Your task to perform on an android device: turn on data saver in the chrome app Image 0: 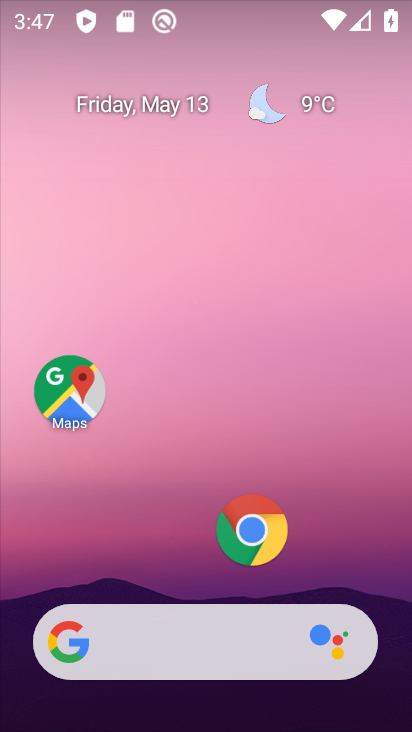
Step 0: press home button
Your task to perform on an android device: turn on data saver in the chrome app Image 1: 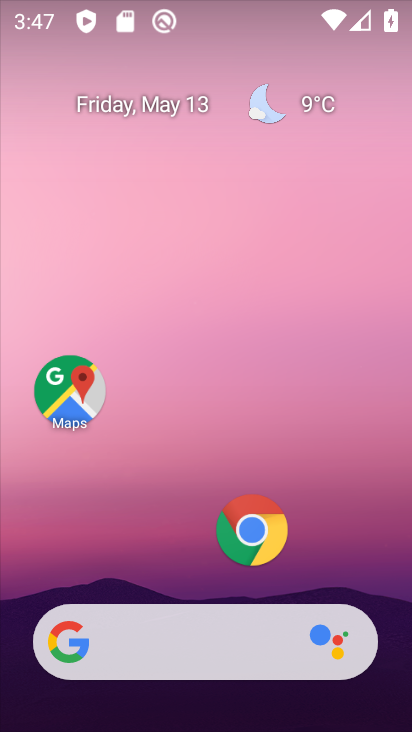
Step 1: press home button
Your task to perform on an android device: turn on data saver in the chrome app Image 2: 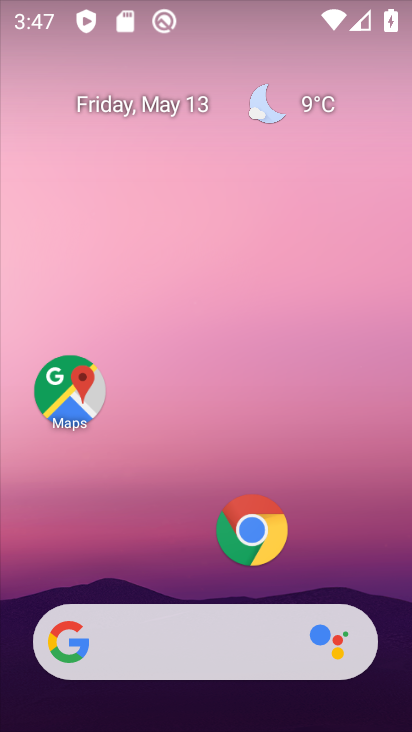
Step 2: drag from (198, 576) to (211, 80)
Your task to perform on an android device: turn on data saver in the chrome app Image 3: 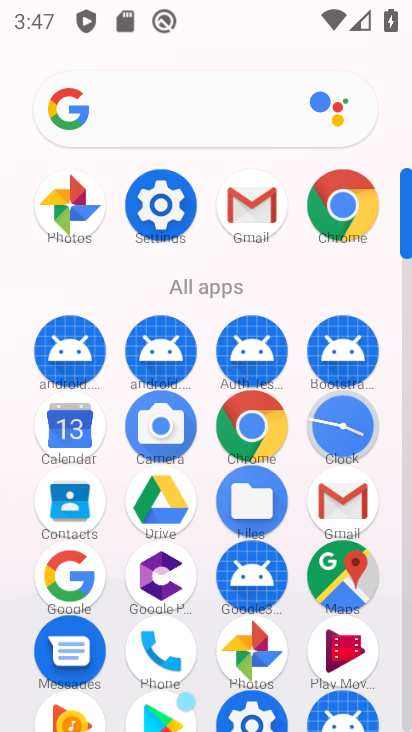
Step 3: click (249, 423)
Your task to perform on an android device: turn on data saver in the chrome app Image 4: 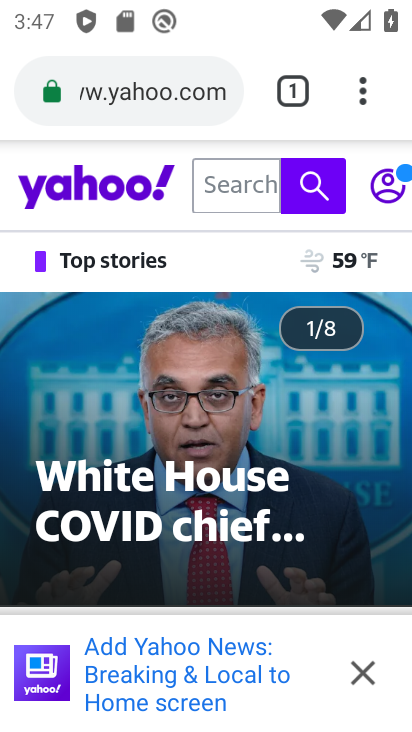
Step 4: click (362, 89)
Your task to perform on an android device: turn on data saver in the chrome app Image 5: 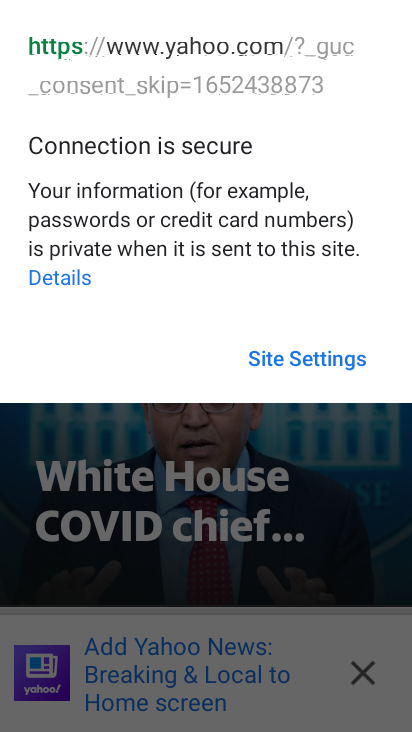
Step 5: click (213, 579)
Your task to perform on an android device: turn on data saver in the chrome app Image 6: 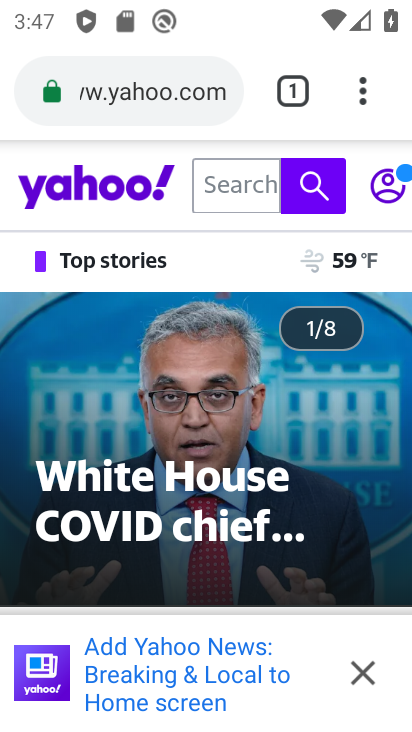
Step 6: click (371, 86)
Your task to perform on an android device: turn on data saver in the chrome app Image 7: 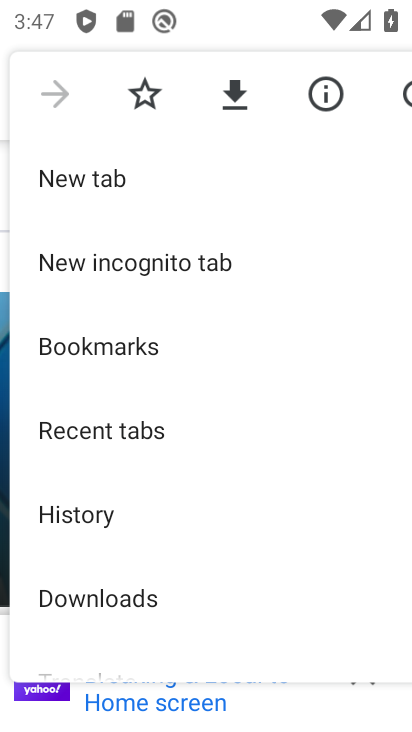
Step 7: drag from (176, 572) to (168, 147)
Your task to perform on an android device: turn on data saver in the chrome app Image 8: 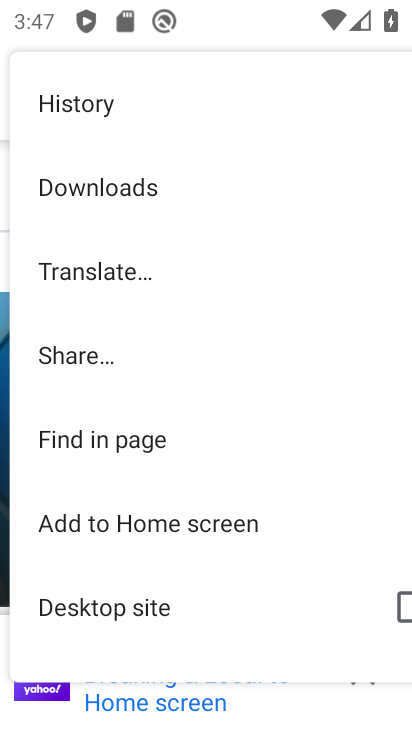
Step 8: drag from (180, 585) to (180, 87)
Your task to perform on an android device: turn on data saver in the chrome app Image 9: 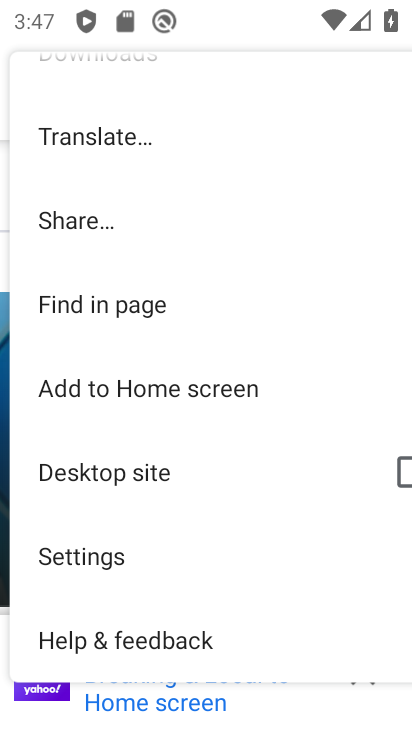
Step 9: click (135, 558)
Your task to perform on an android device: turn on data saver in the chrome app Image 10: 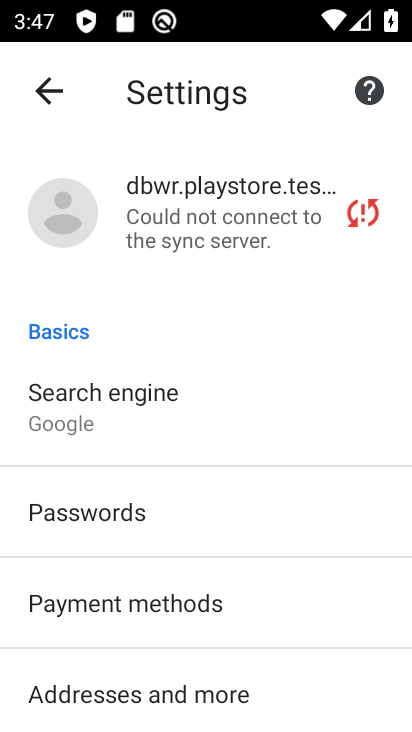
Step 10: drag from (252, 669) to (261, 159)
Your task to perform on an android device: turn on data saver in the chrome app Image 11: 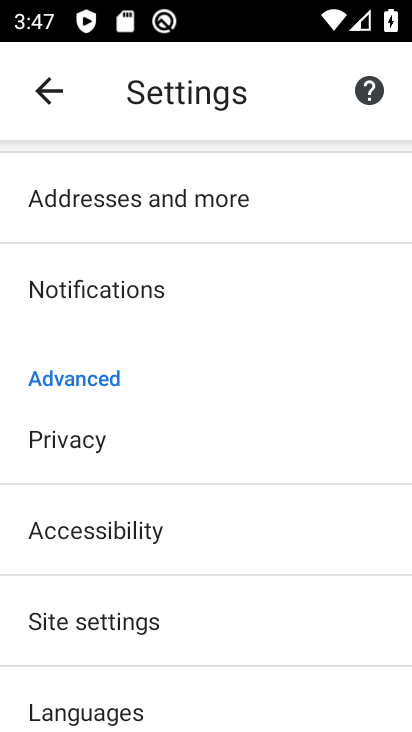
Step 11: drag from (210, 671) to (217, 236)
Your task to perform on an android device: turn on data saver in the chrome app Image 12: 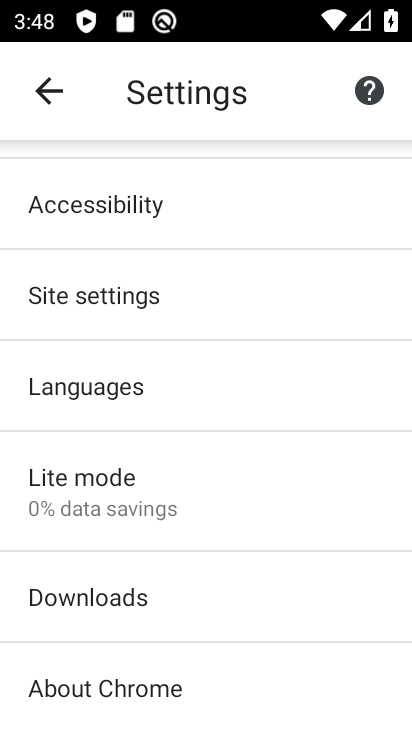
Step 12: click (150, 480)
Your task to perform on an android device: turn on data saver in the chrome app Image 13: 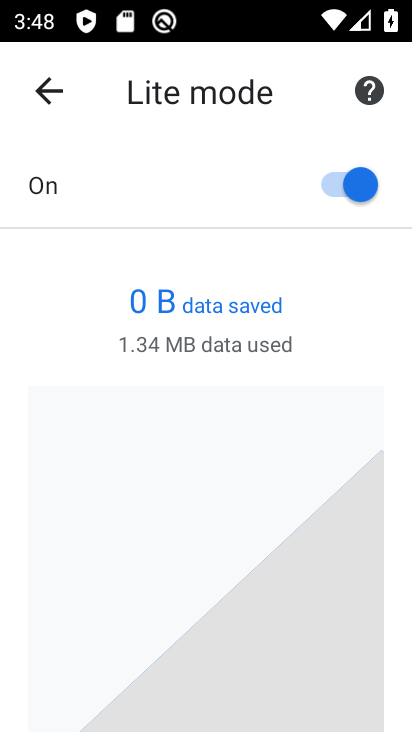
Step 13: task complete